Your task to perform on an android device: turn smart compose on in the gmail app Image 0: 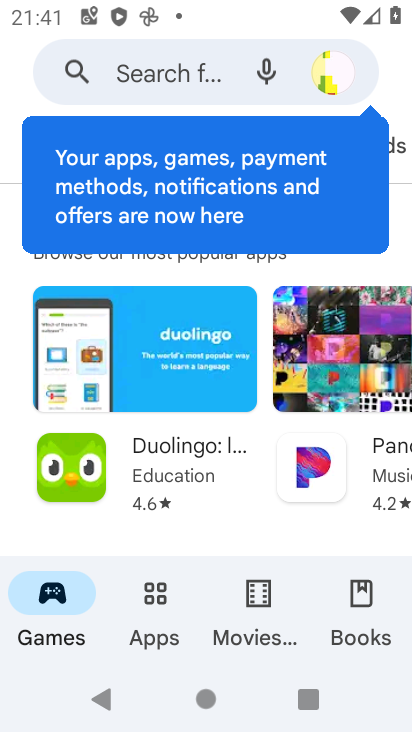
Step 0: press home button
Your task to perform on an android device: turn smart compose on in the gmail app Image 1: 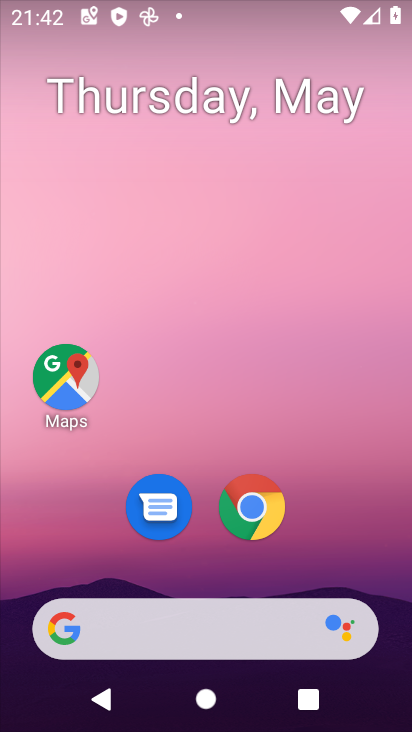
Step 1: drag from (265, 580) to (182, 233)
Your task to perform on an android device: turn smart compose on in the gmail app Image 2: 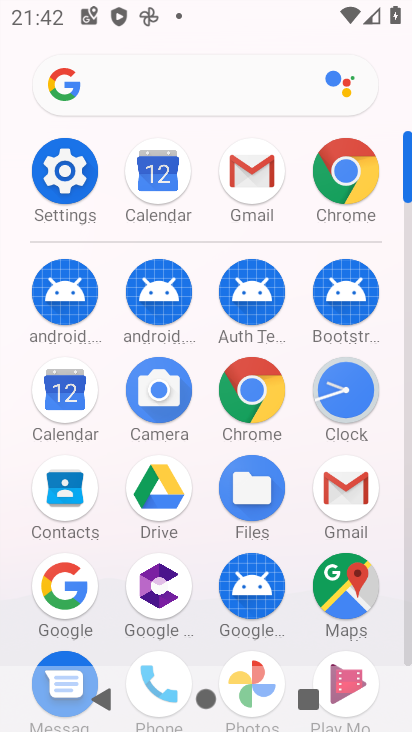
Step 2: click (243, 192)
Your task to perform on an android device: turn smart compose on in the gmail app Image 3: 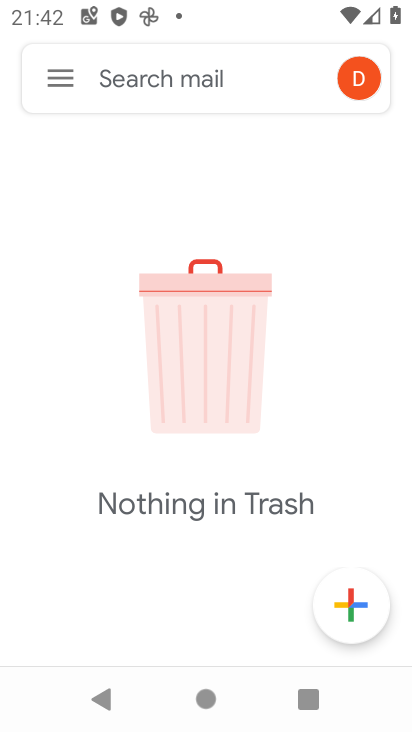
Step 3: click (44, 77)
Your task to perform on an android device: turn smart compose on in the gmail app Image 4: 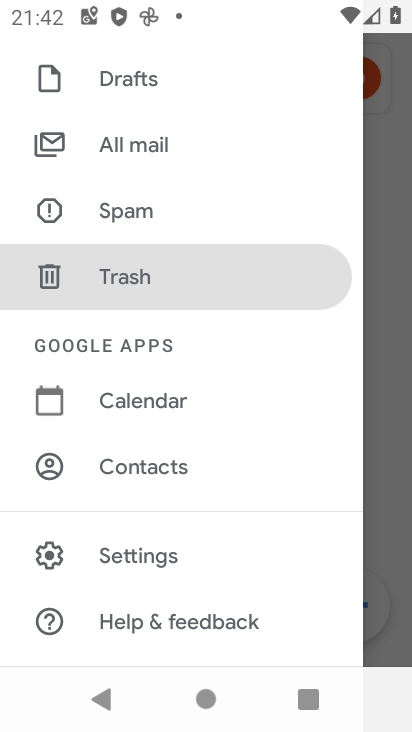
Step 4: click (193, 550)
Your task to perform on an android device: turn smart compose on in the gmail app Image 5: 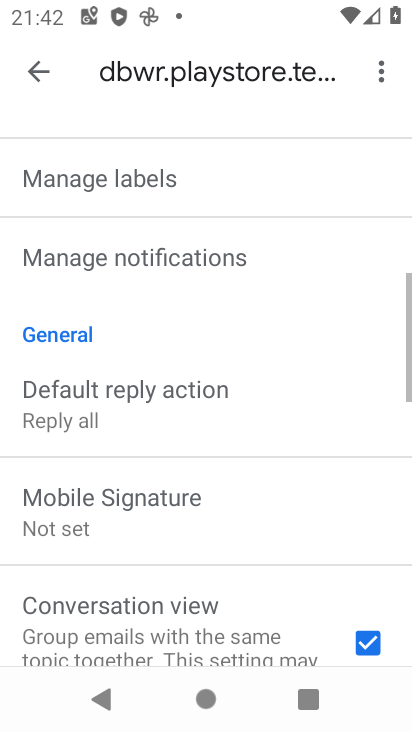
Step 5: drag from (240, 582) to (197, 311)
Your task to perform on an android device: turn smart compose on in the gmail app Image 6: 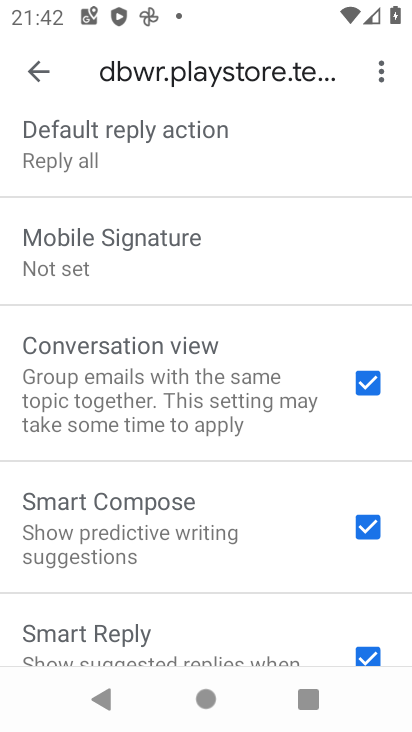
Step 6: click (376, 533)
Your task to perform on an android device: turn smart compose on in the gmail app Image 7: 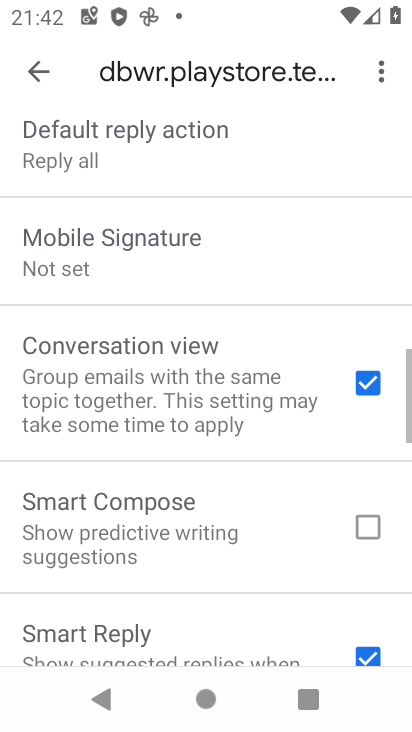
Step 7: click (372, 534)
Your task to perform on an android device: turn smart compose on in the gmail app Image 8: 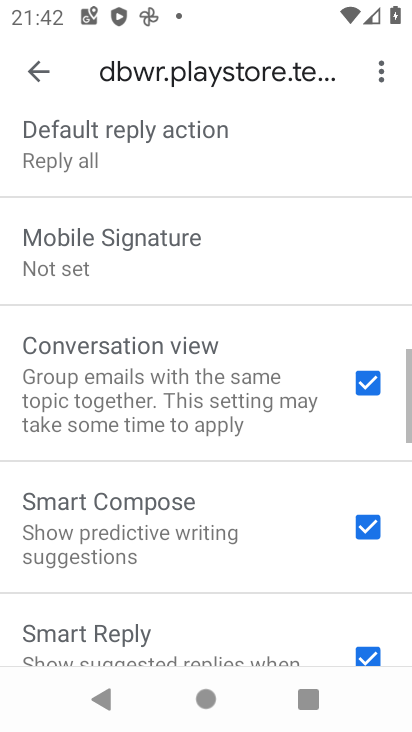
Step 8: task complete